Your task to perform on an android device: open app "Messenger Lite" (install if not already installed) and enter user name: "cataclysmic@outlook.com" and password: "victoriously" Image 0: 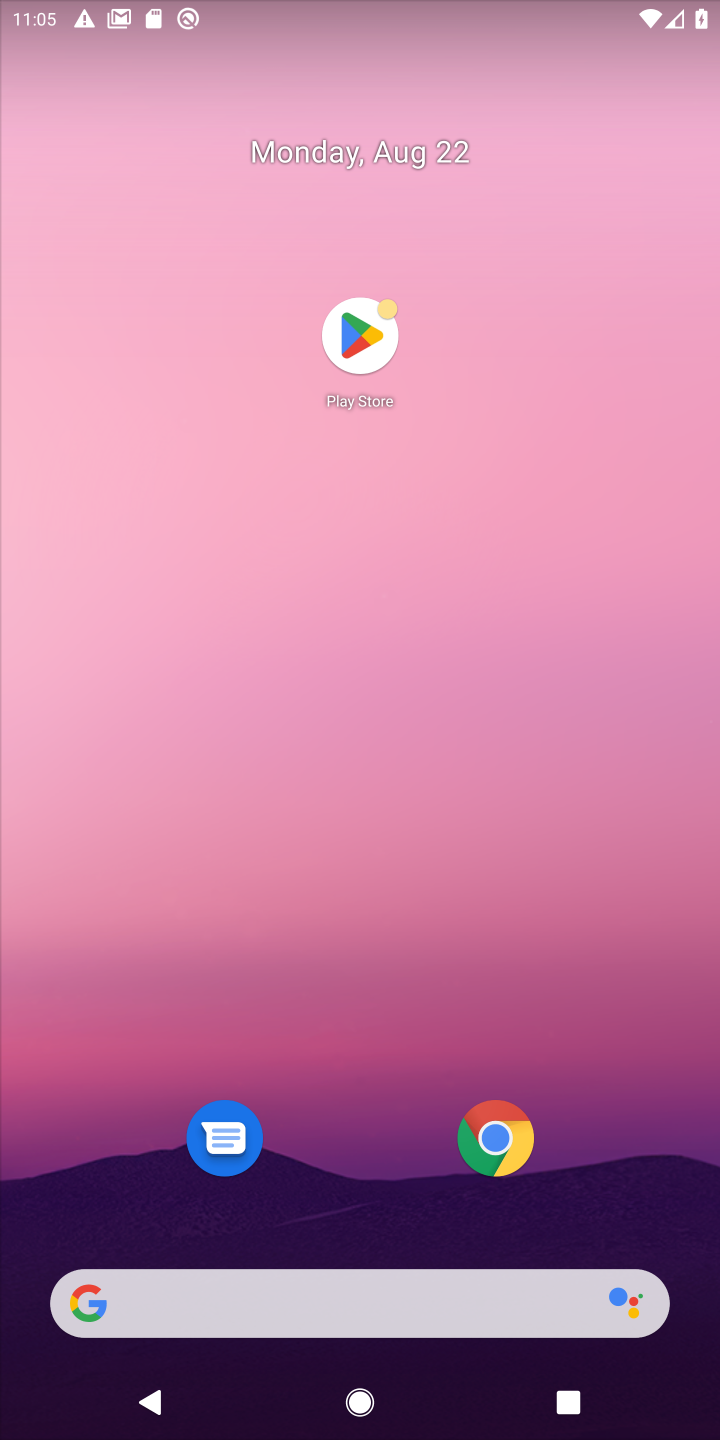
Step 0: click (365, 327)
Your task to perform on an android device: open app "Messenger Lite" (install if not already installed) and enter user name: "cataclysmic@outlook.com" and password: "victoriously" Image 1: 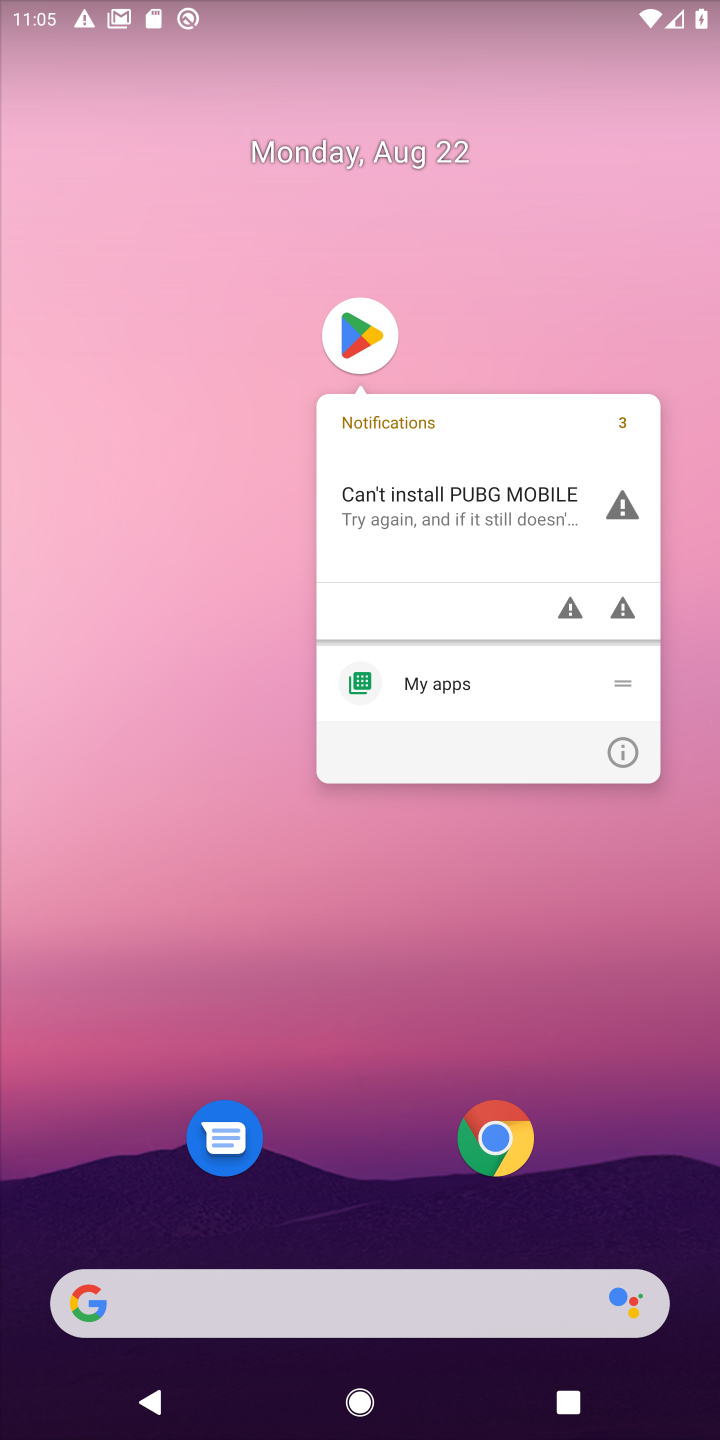
Step 1: click (365, 329)
Your task to perform on an android device: open app "Messenger Lite" (install if not already installed) and enter user name: "cataclysmic@outlook.com" and password: "victoriously" Image 2: 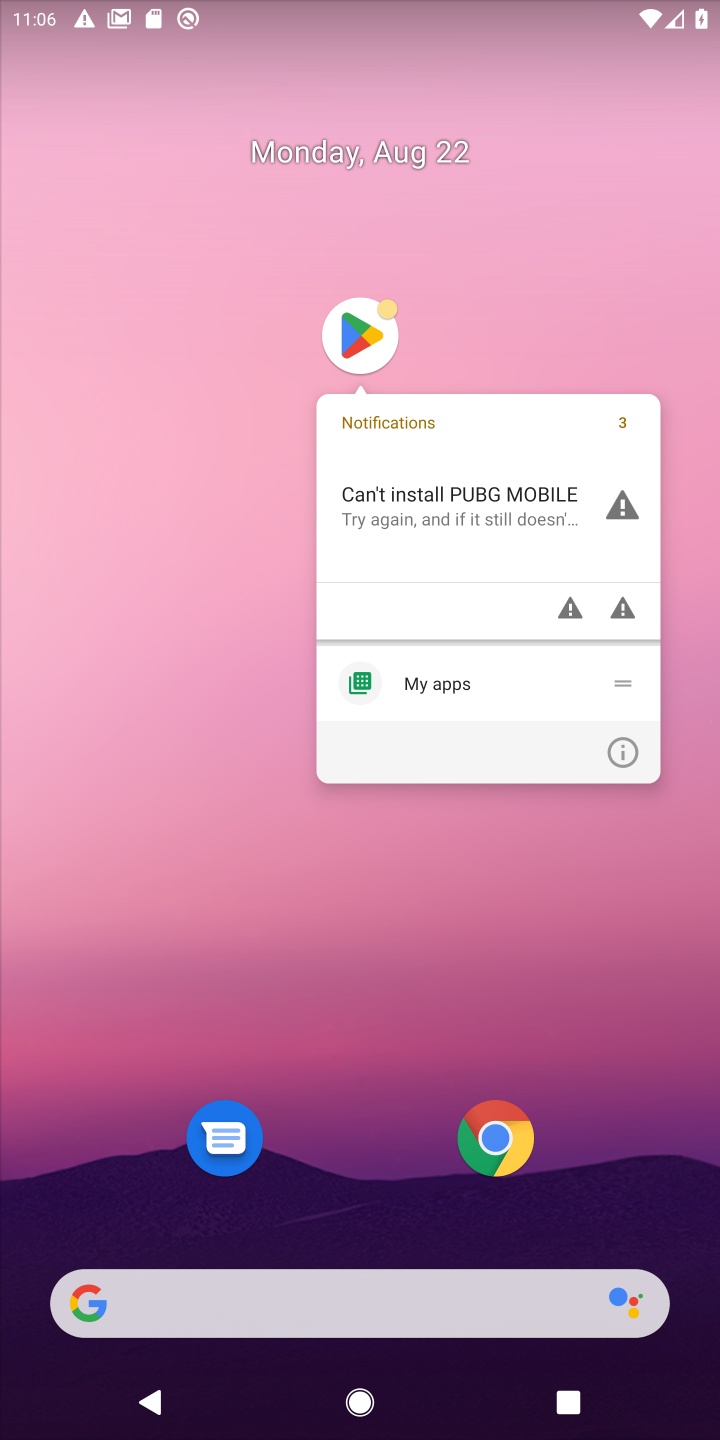
Step 2: click (368, 337)
Your task to perform on an android device: open app "Messenger Lite" (install if not already installed) and enter user name: "cataclysmic@outlook.com" and password: "victoriously" Image 3: 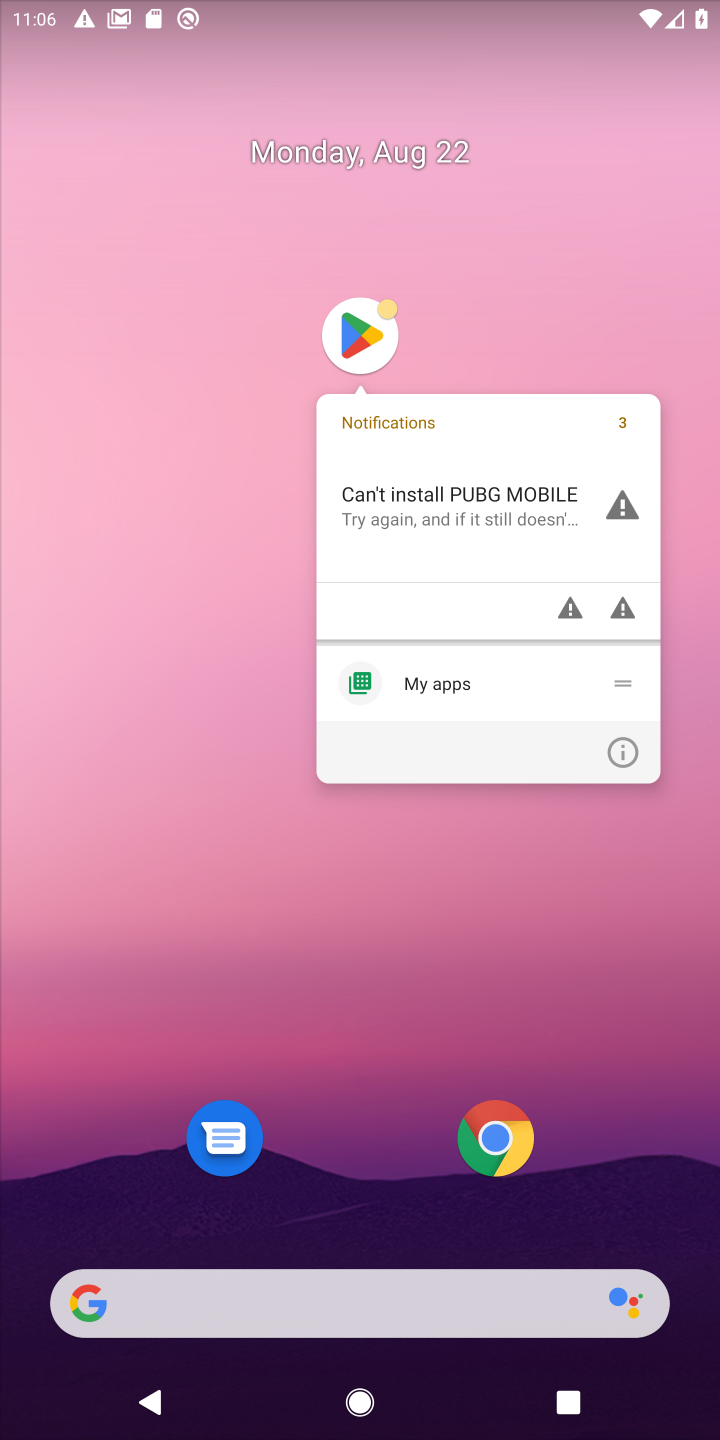
Step 3: click (374, 330)
Your task to perform on an android device: open app "Messenger Lite" (install if not already installed) and enter user name: "cataclysmic@outlook.com" and password: "victoriously" Image 4: 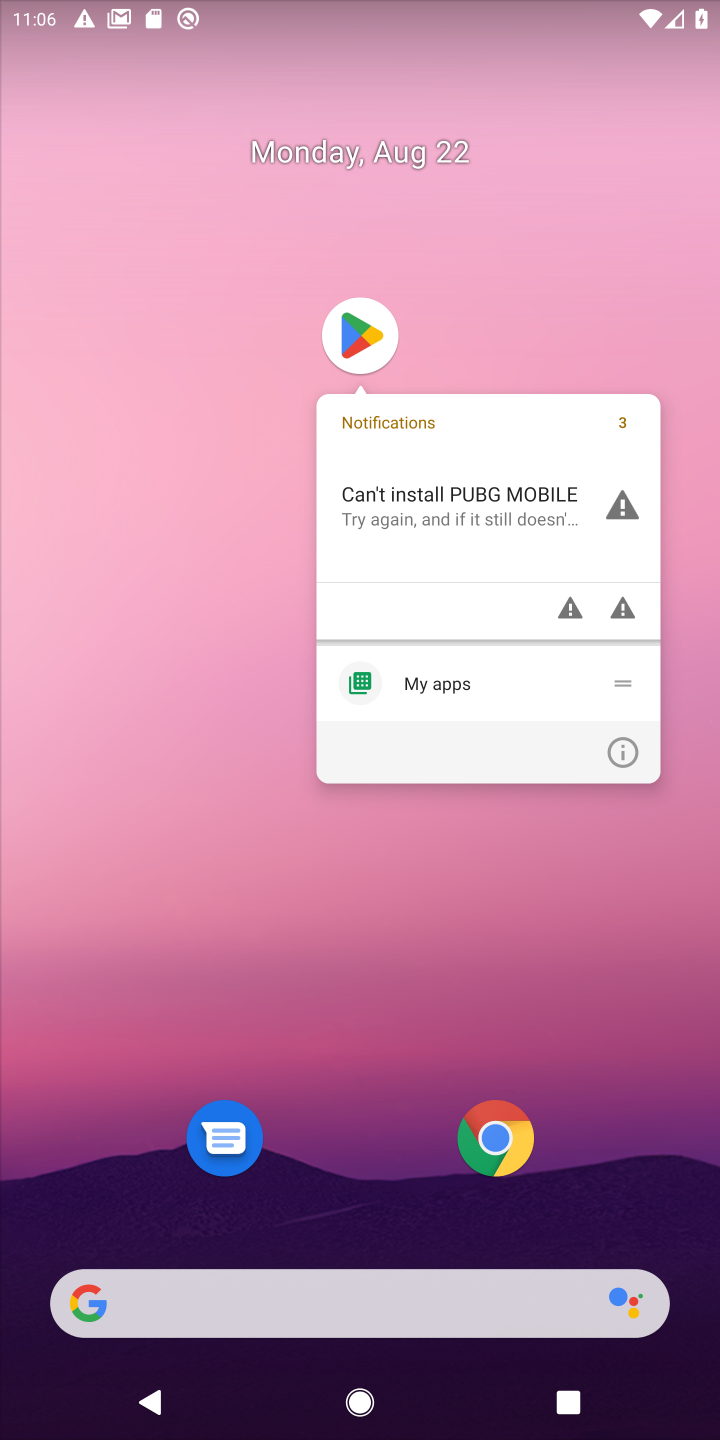
Step 4: click (369, 335)
Your task to perform on an android device: open app "Messenger Lite" (install if not already installed) and enter user name: "cataclysmic@outlook.com" and password: "victoriously" Image 5: 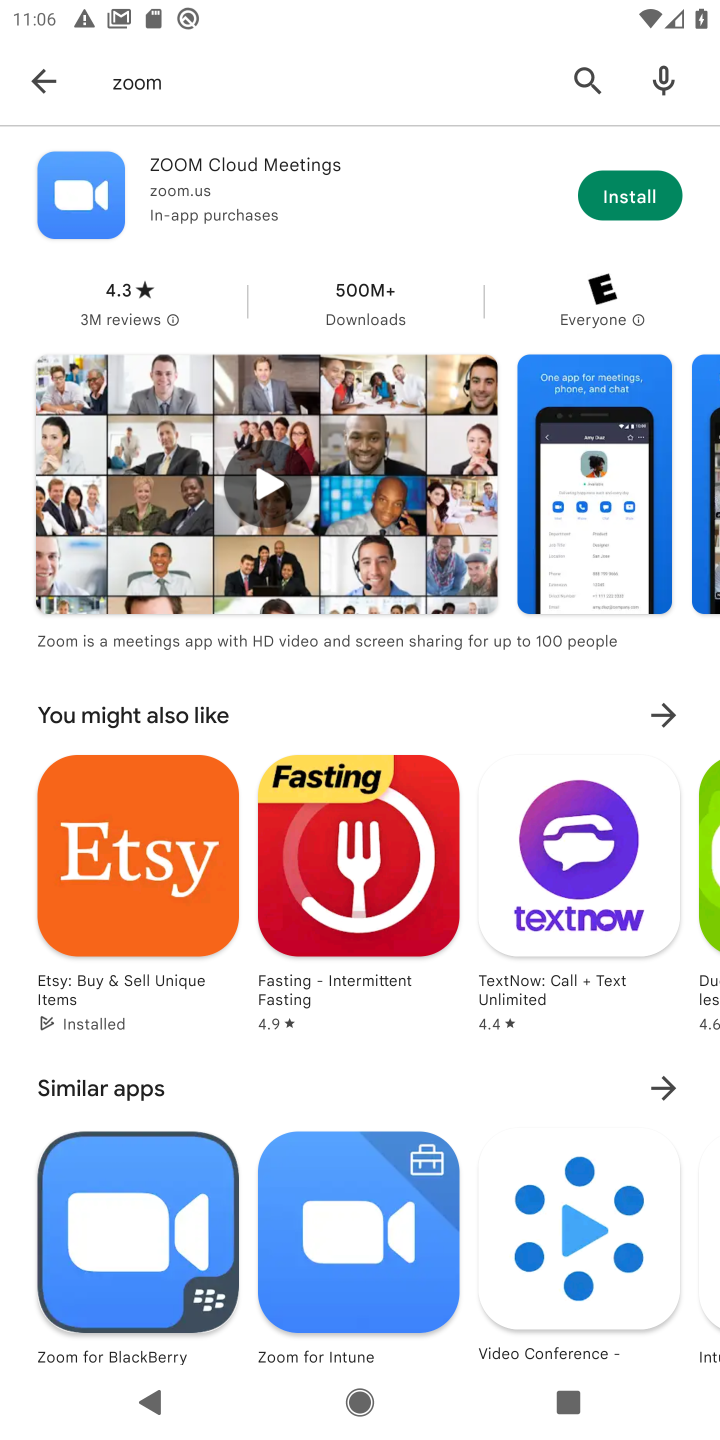
Step 5: click (580, 86)
Your task to perform on an android device: open app "Messenger Lite" (install if not already installed) and enter user name: "cataclysmic@outlook.com" and password: "victoriously" Image 6: 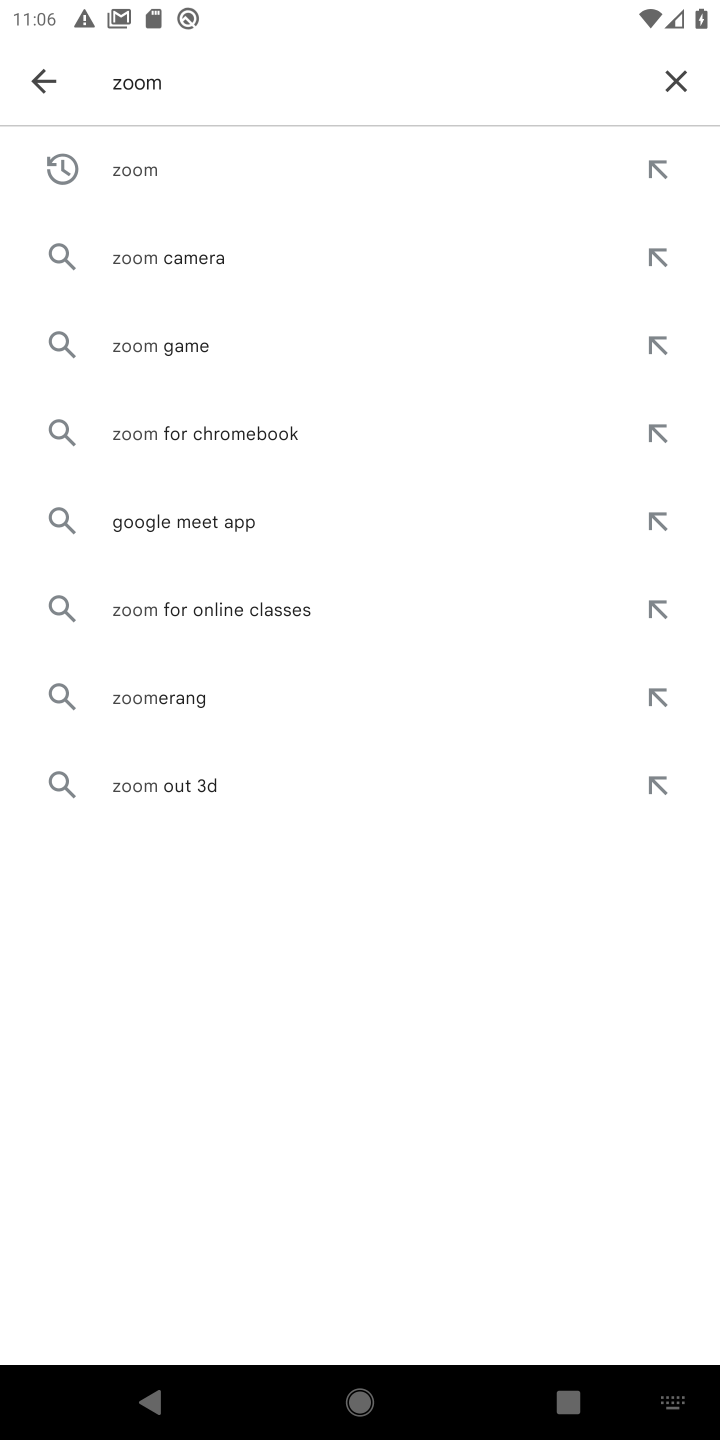
Step 6: click (683, 75)
Your task to perform on an android device: open app "Messenger Lite" (install if not already installed) and enter user name: "cataclysmic@outlook.com" and password: "victoriously" Image 7: 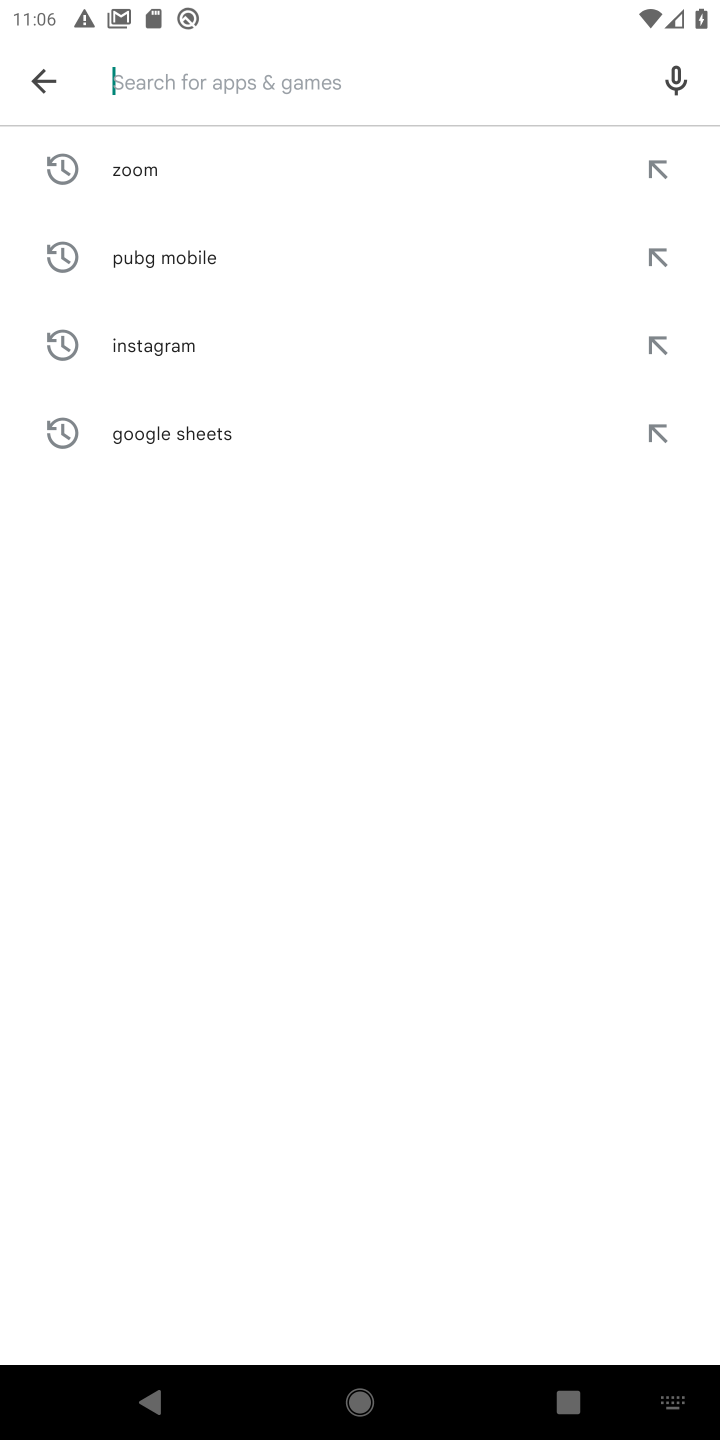
Step 7: type "messenger lite"
Your task to perform on an android device: open app "Messenger Lite" (install if not already installed) and enter user name: "cataclysmic@outlook.com" and password: "victoriously" Image 8: 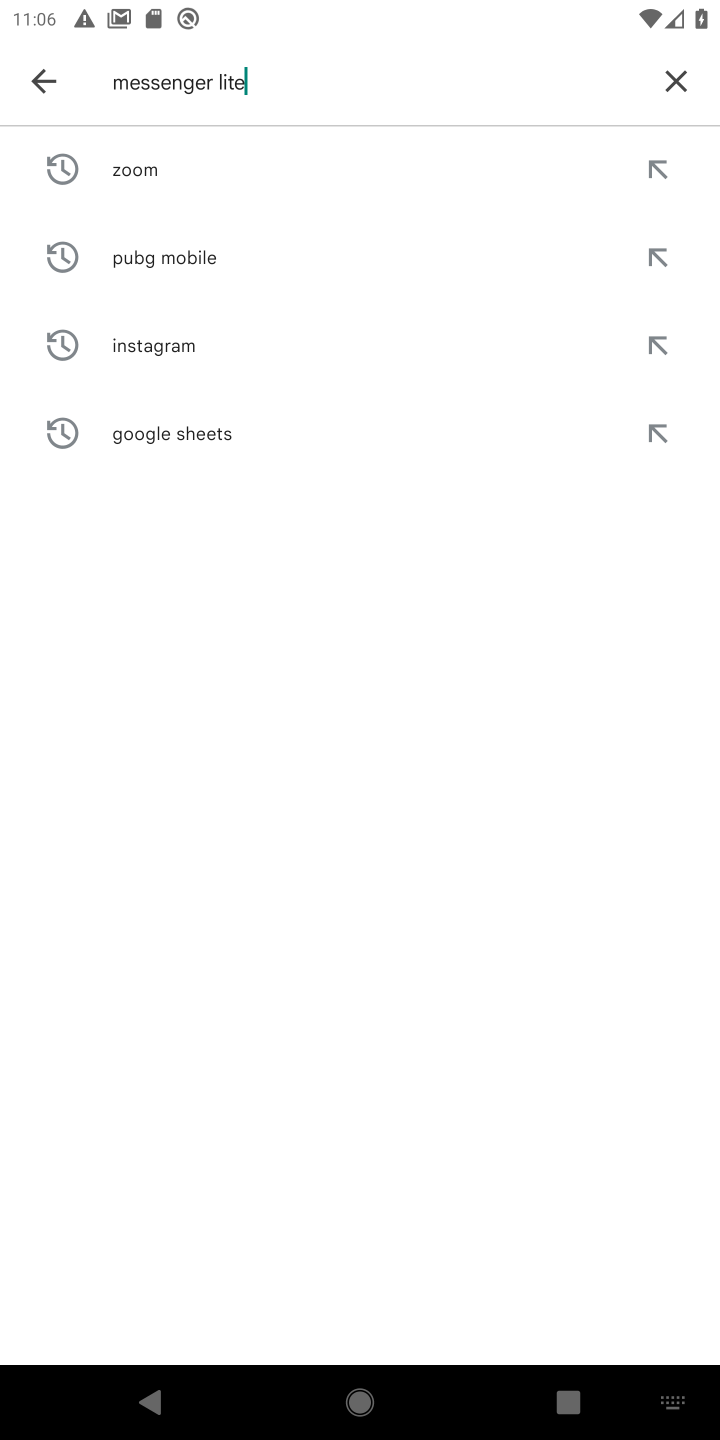
Step 8: type ""
Your task to perform on an android device: open app "Messenger Lite" (install if not already installed) and enter user name: "cataclysmic@outlook.com" and password: "victoriously" Image 9: 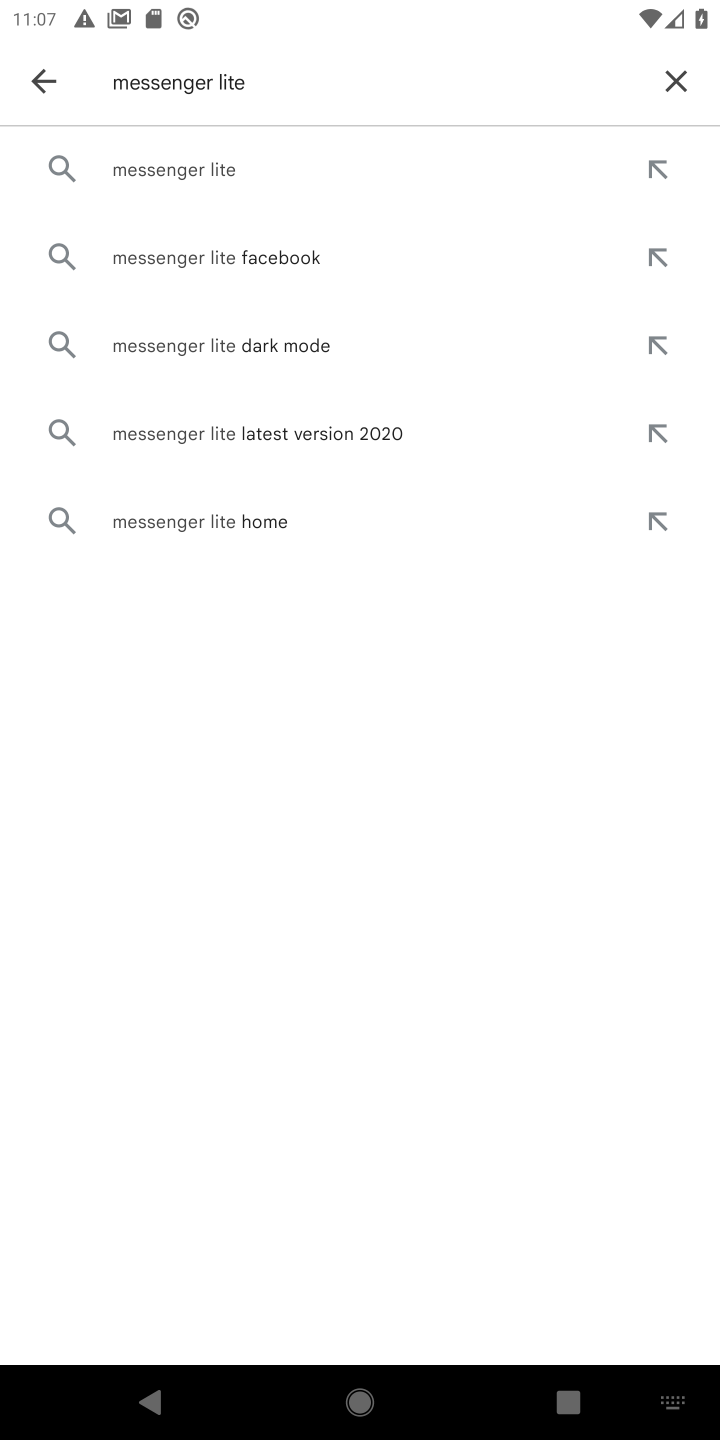
Step 9: click (220, 169)
Your task to perform on an android device: open app "Messenger Lite" (install if not already installed) and enter user name: "cataclysmic@outlook.com" and password: "victoriously" Image 10: 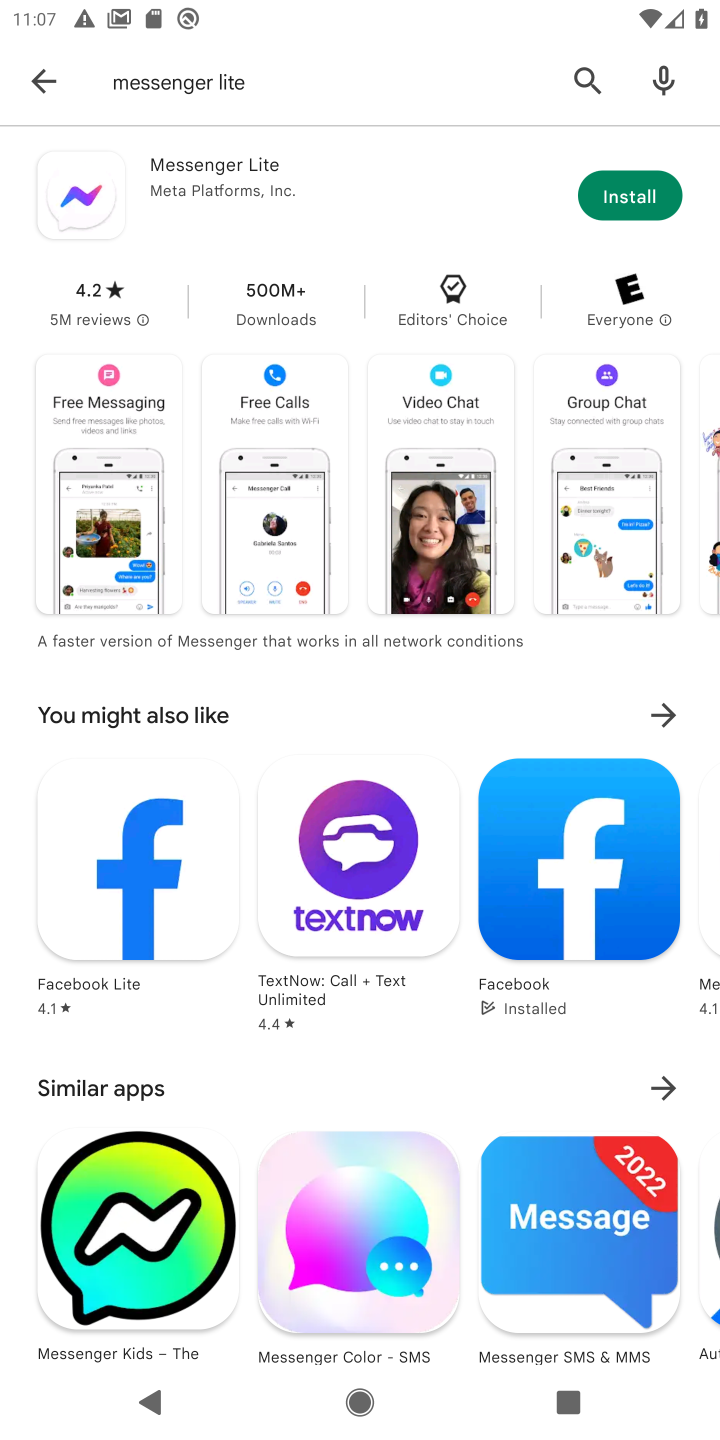
Step 10: click (668, 189)
Your task to perform on an android device: open app "Messenger Lite" (install if not already installed) and enter user name: "cataclysmic@outlook.com" and password: "victoriously" Image 11: 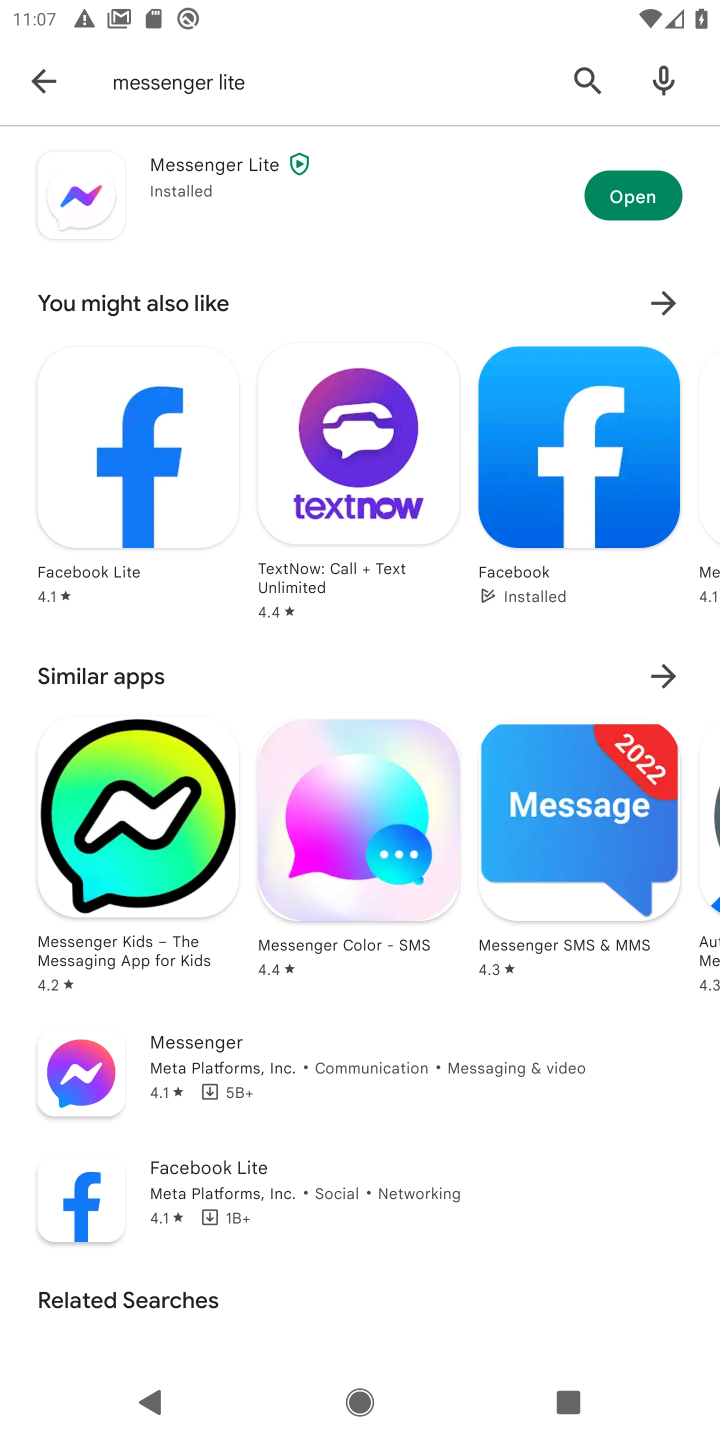
Step 11: click (656, 202)
Your task to perform on an android device: open app "Messenger Lite" (install if not already installed) and enter user name: "cataclysmic@outlook.com" and password: "victoriously" Image 12: 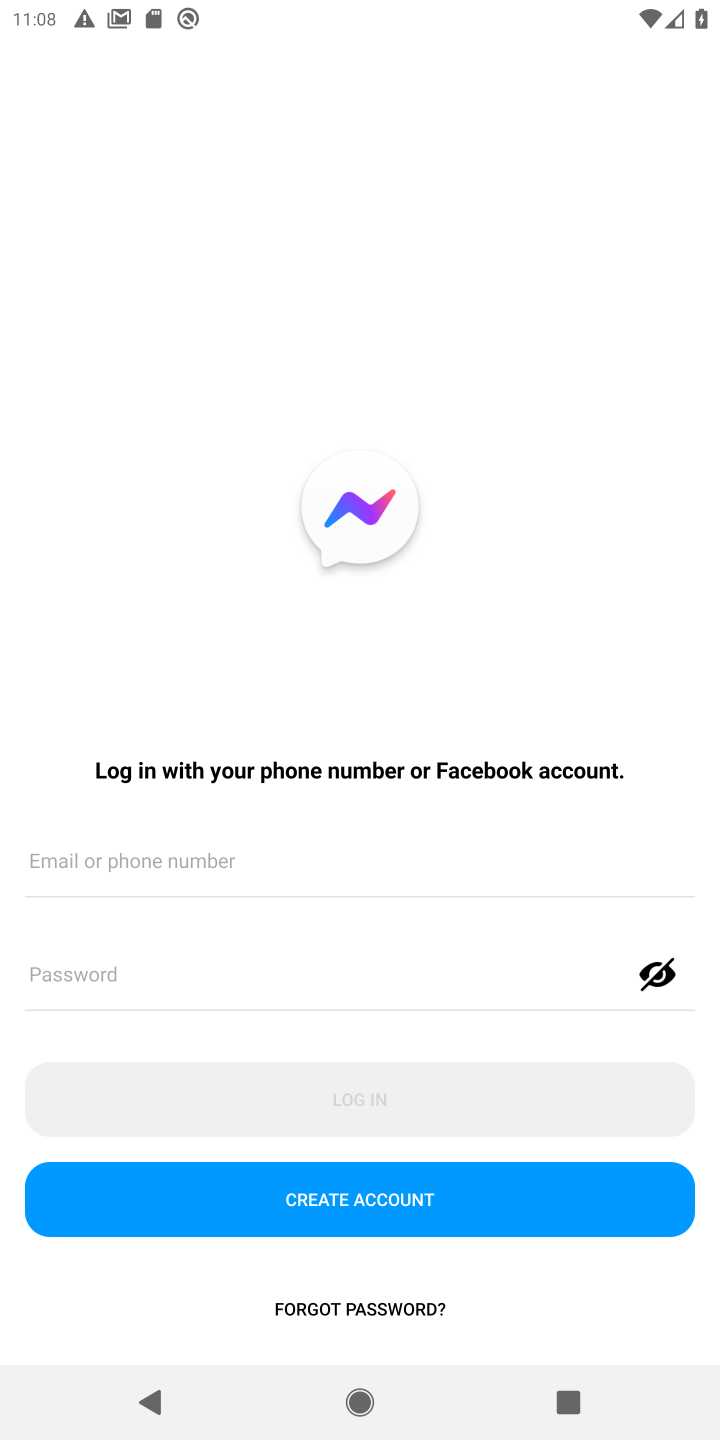
Step 12: click (302, 850)
Your task to perform on an android device: open app "Messenger Lite" (install if not already installed) and enter user name: "cataclysmic@outlook.com" and password: "victoriously" Image 13: 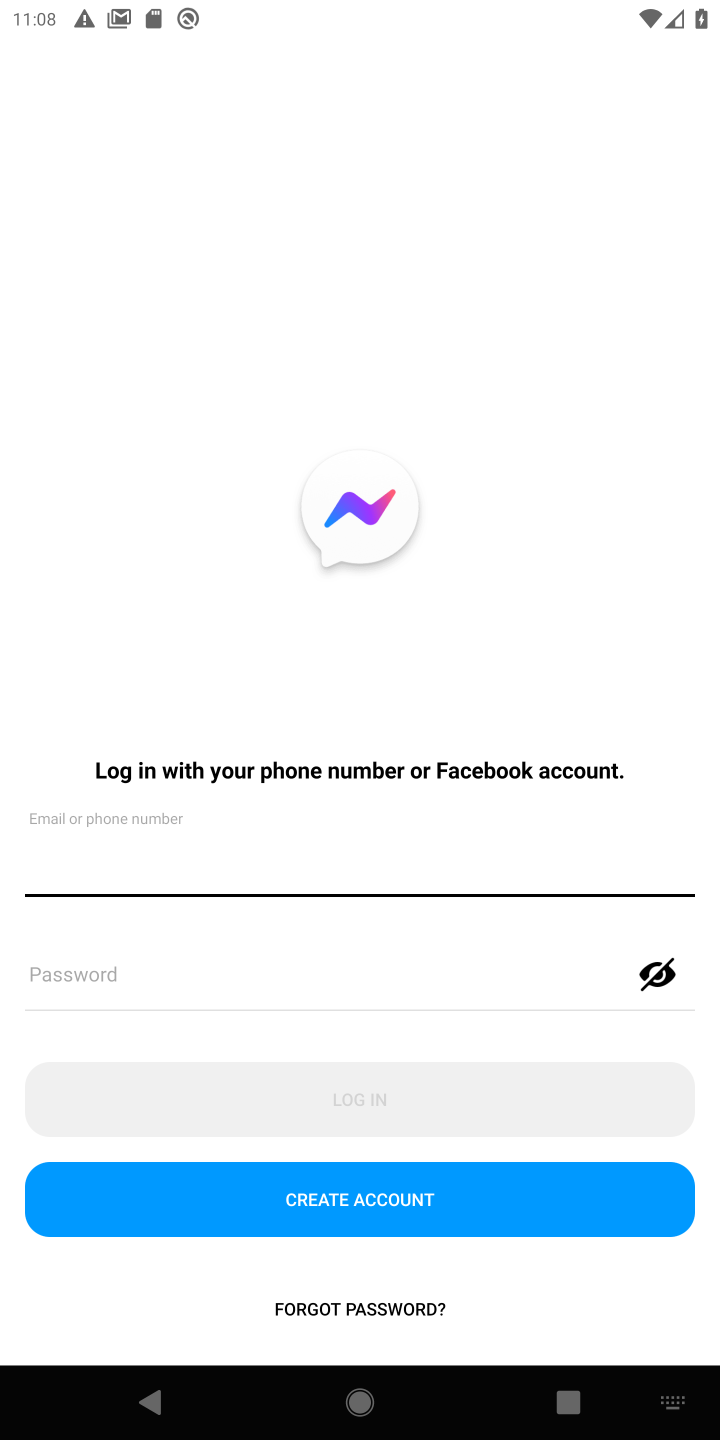
Step 13: click (160, 849)
Your task to perform on an android device: open app "Messenger Lite" (install if not already installed) and enter user name: "cataclysmic@outlook.com" and password: "victoriously" Image 14: 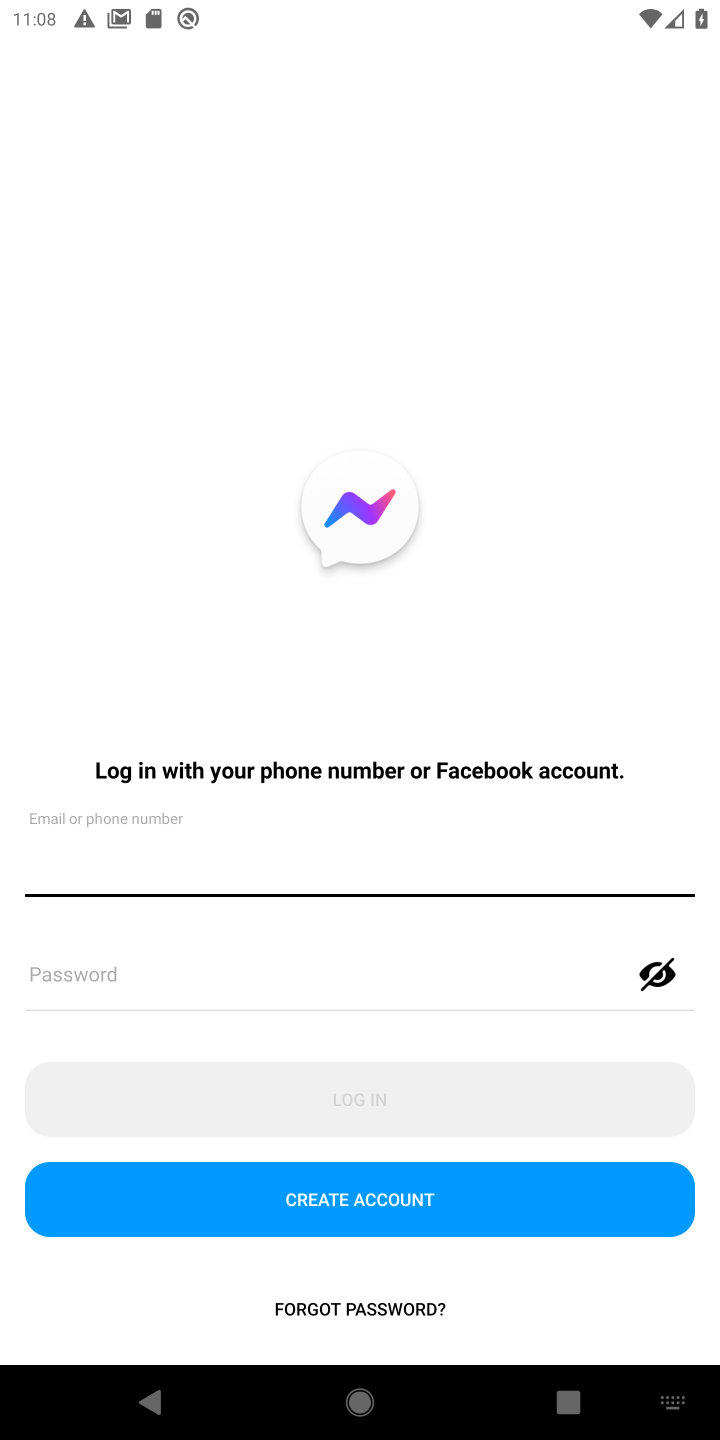
Step 14: type "cataclysmic@outlook.com"
Your task to perform on an android device: open app "Messenger Lite" (install if not already installed) and enter user name: "cataclysmic@outlook.com" and password: "victoriously" Image 15: 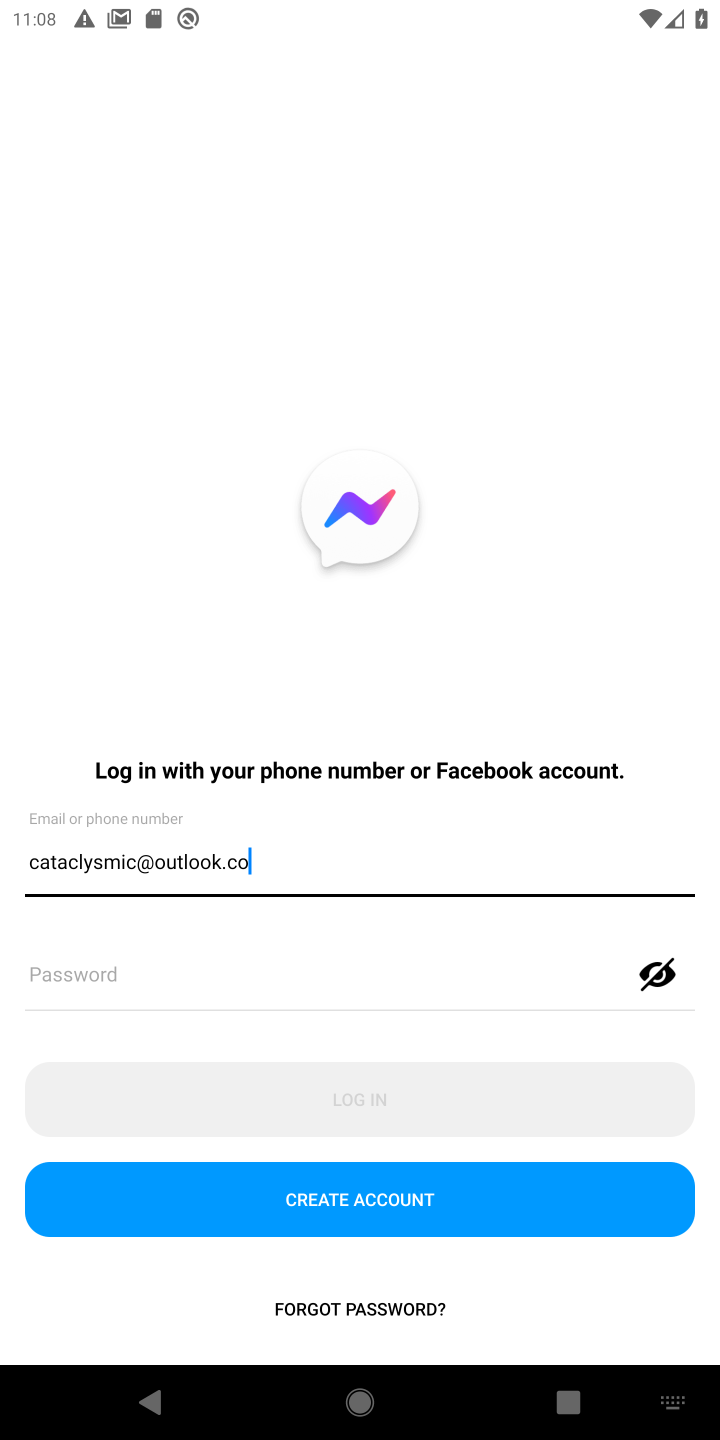
Step 15: type ""
Your task to perform on an android device: open app "Messenger Lite" (install if not already installed) and enter user name: "cataclysmic@outlook.com" and password: "victoriously" Image 16: 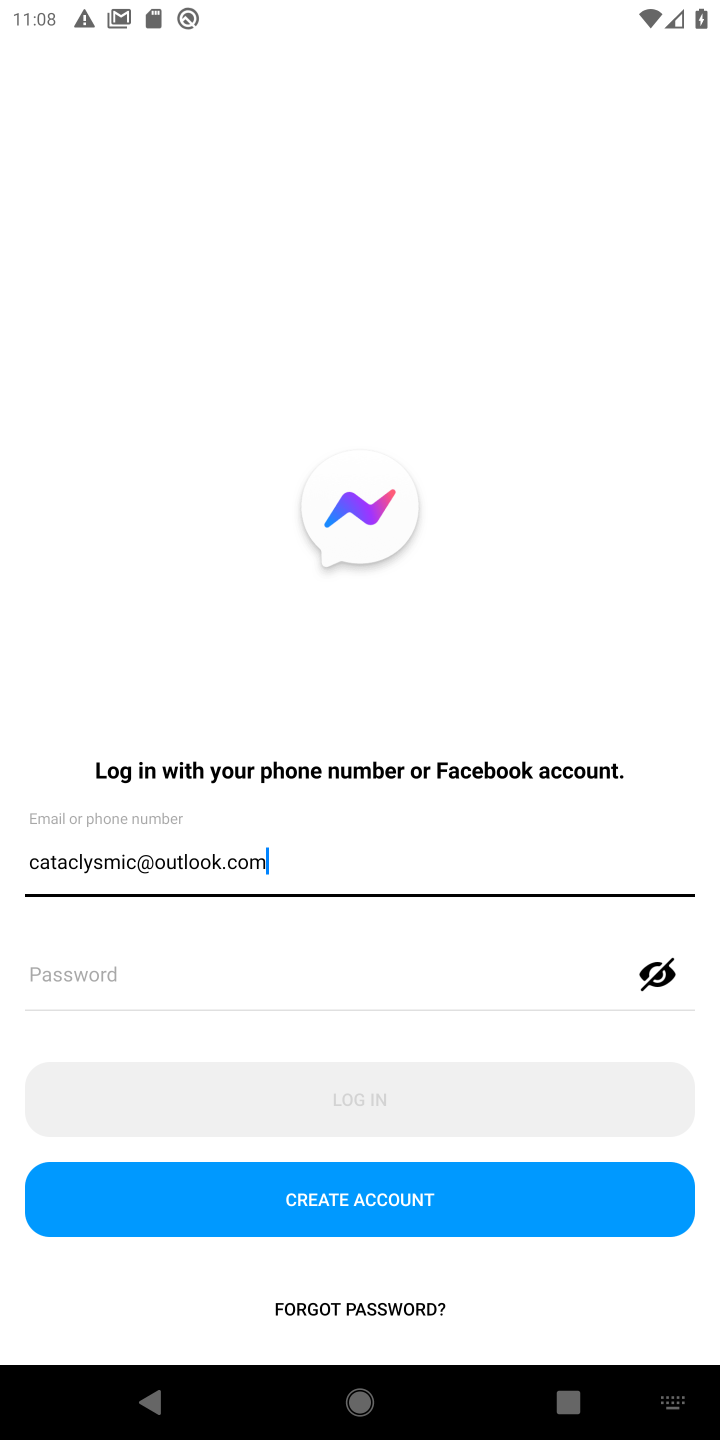
Step 16: click (77, 964)
Your task to perform on an android device: open app "Messenger Lite" (install if not already installed) and enter user name: "cataclysmic@outlook.com" and password: "victoriously" Image 17: 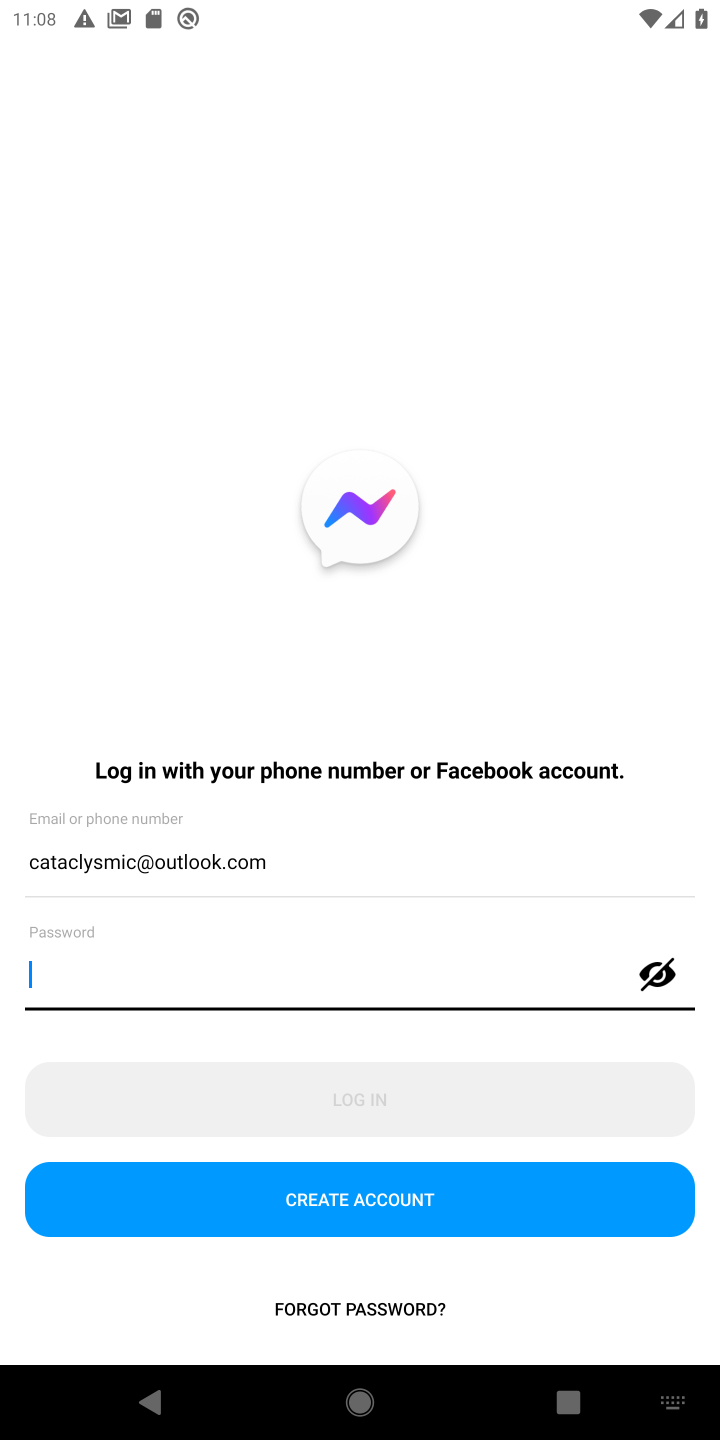
Step 17: click (90, 976)
Your task to perform on an android device: open app "Messenger Lite" (install if not already installed) and enter user name: "cataclysmic@outlook.com" and password: "victoriously" Image 18: 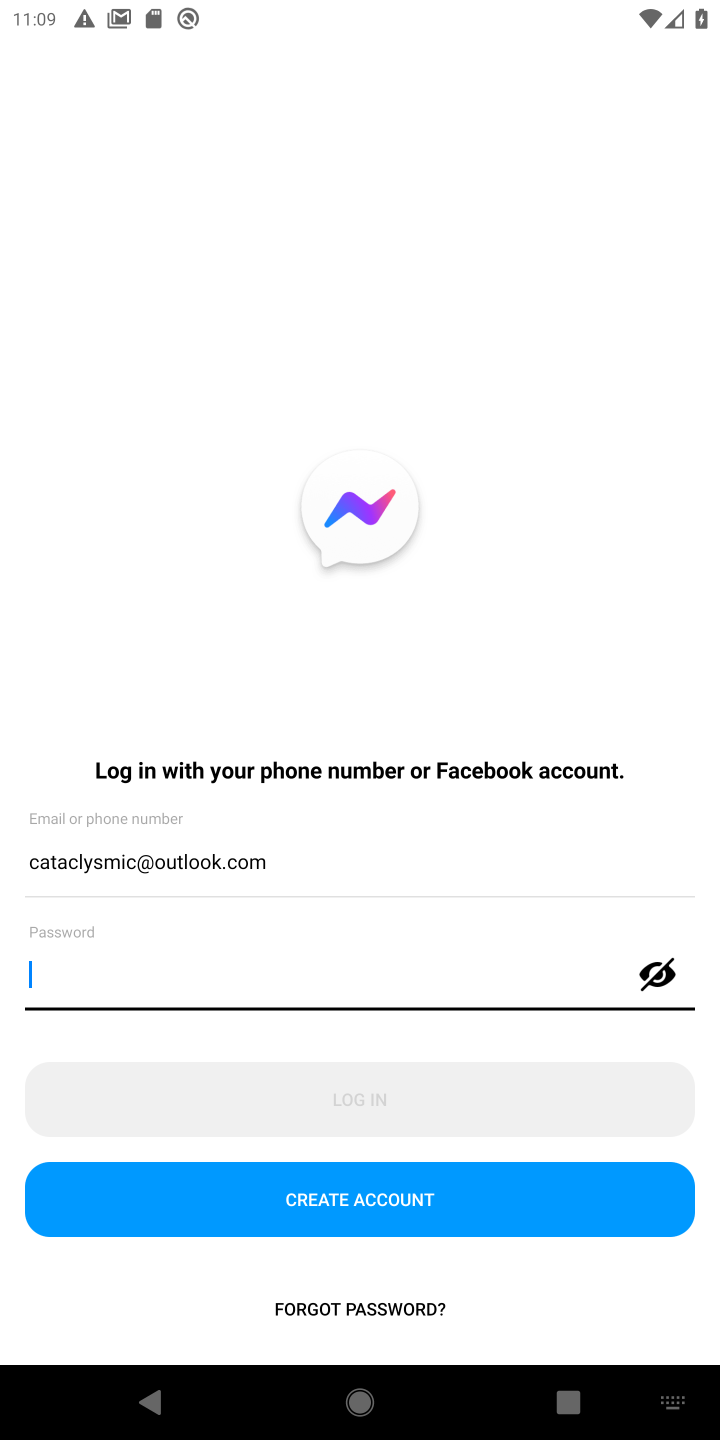
Step 18: type "victoriously"
Your task to perform on an android device: open app "Messenger Lite" (install if not already installed) and enter user name: "cataclysmic@outlook.com" and password: "victoriously" Image 19: 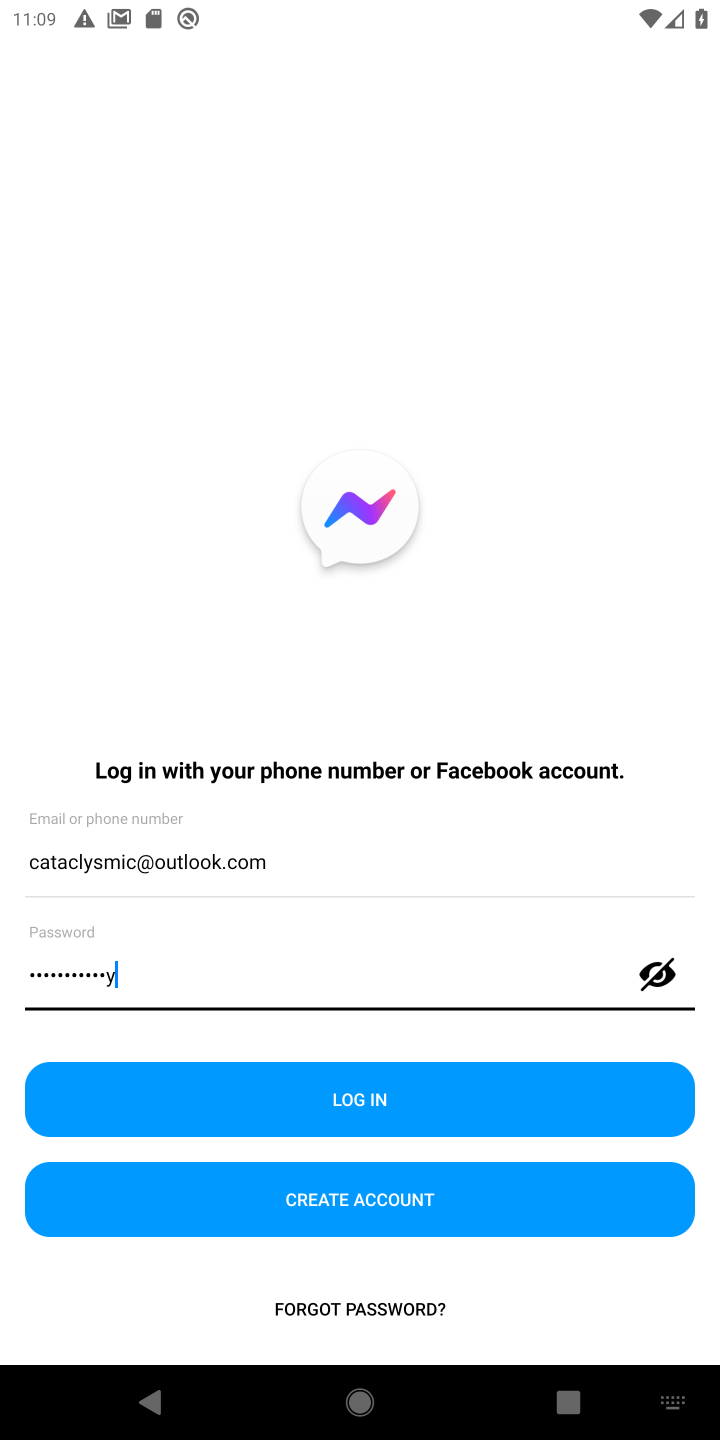
Step 19: type ""
Your task to perform on an android device: open app "Messenger Lite" (install if not already installed) and enter user name: "cataclysmic@outlook.com" and password: "victoriously" Image 20: 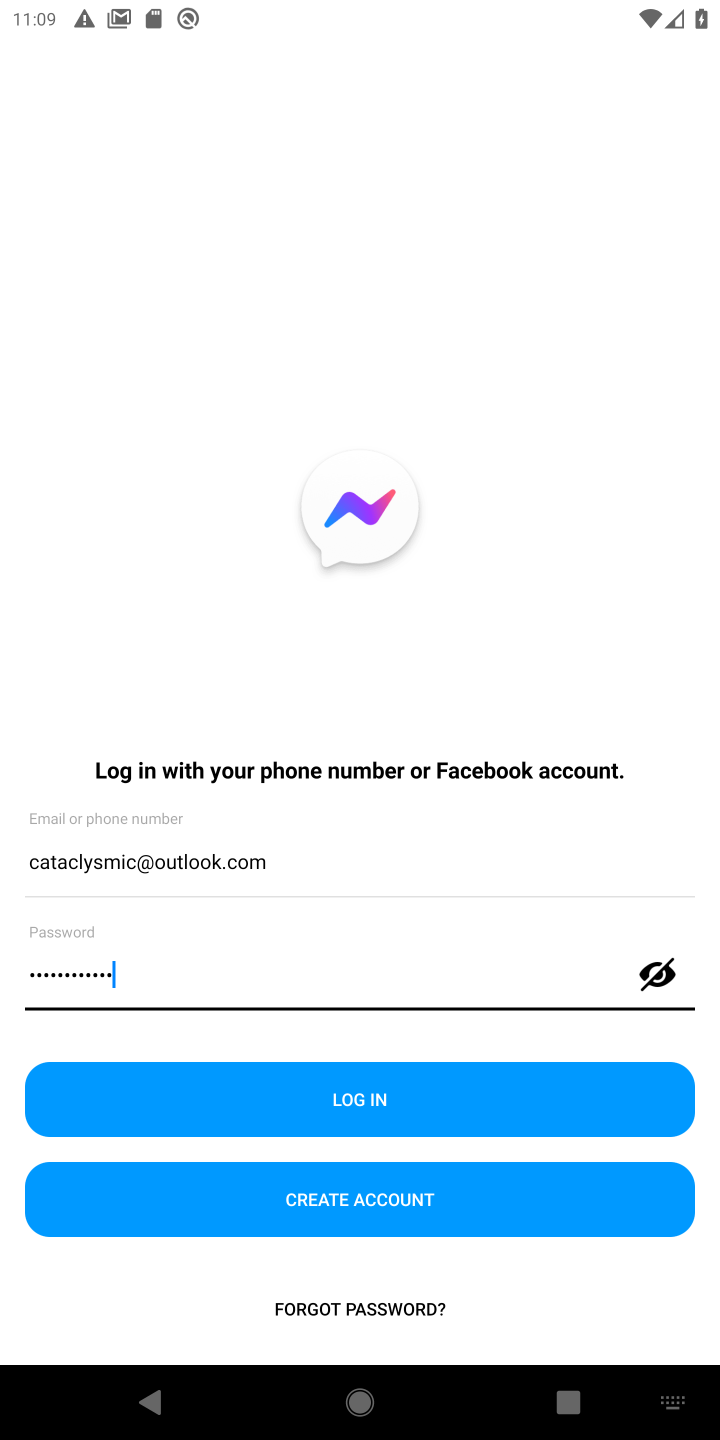
Step 20: task complete